Your task to perform on an android device: make emails show in primary in the gmail app Image 0: 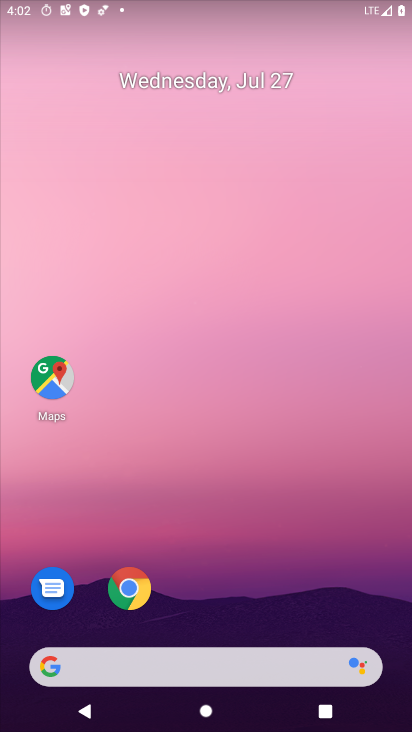
Step 0: press home button
Your task to perform on an android device: make emails show in primary in the gmail app Image 1: 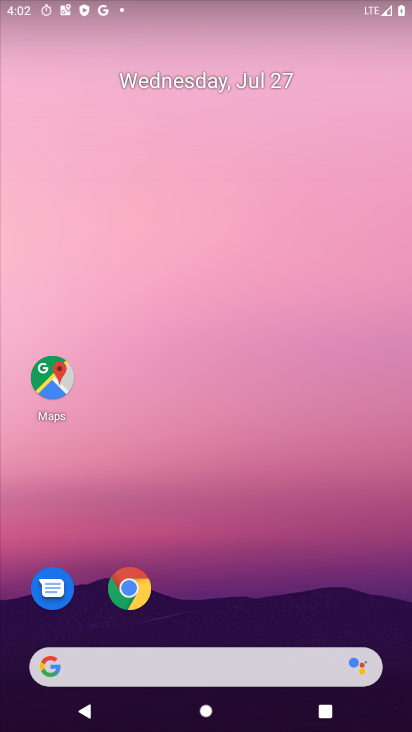
Step 1: drag from (240, 619) to (211, 11)
Your task to perform on an android device: make emails show in primary in the gmail app Image 2: 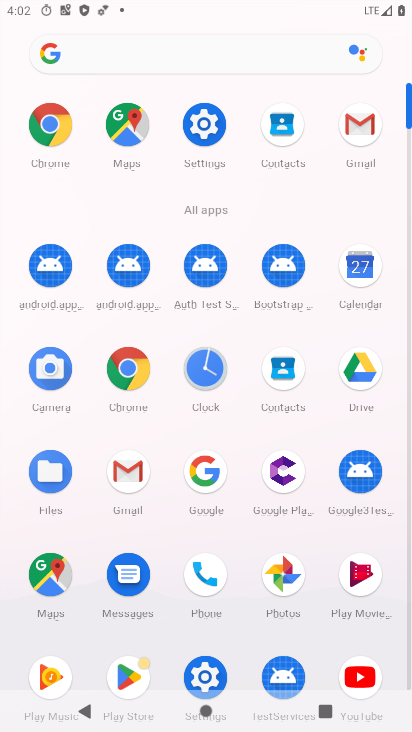
Step 2: click (359, 135)
Your task to perform on an android device: make emails show in primary in the gmail app Image 3: 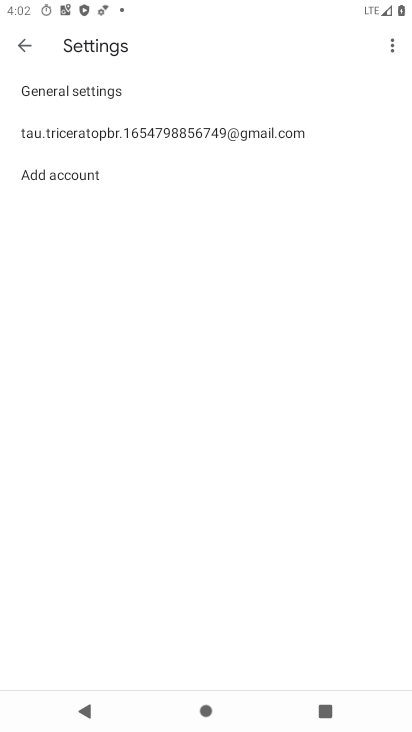
Step 3: click (40, 131)
Your task to perform on an android device: make emails show in primary in the gmail app Image 4: 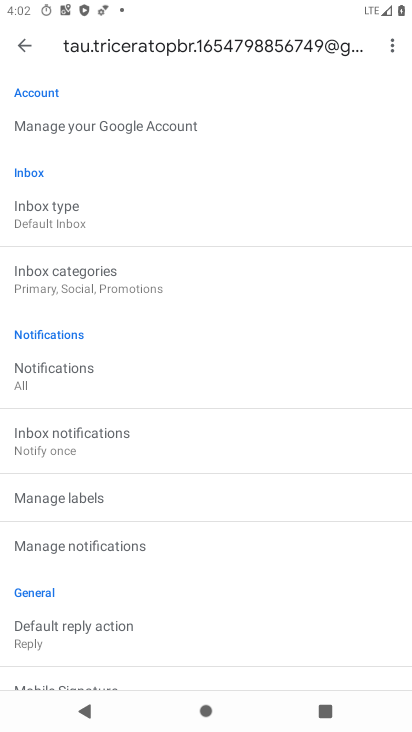
Step 4: click (56, 280)
Your task to perform on an android device: make emails show in primary in the gmail app Image 5: 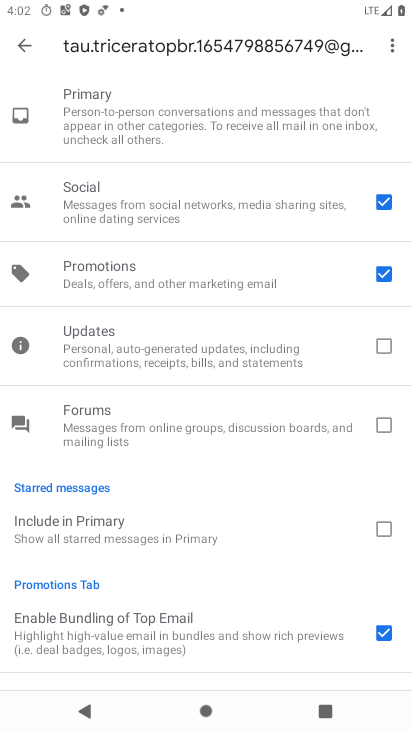
Step 5: click (383, 203)
Your task to perform on an android device: make emails show in primary in the gmail app Image 6: 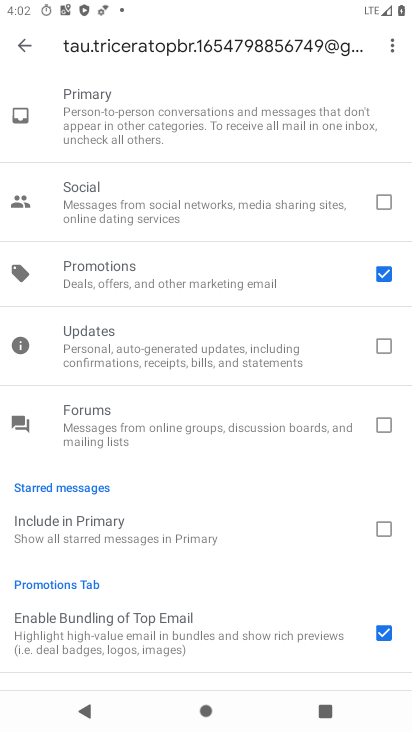
Step 6: click (386, 275)
Your task to perform on an android device: make emails show in primary in the gmail app Image 7: 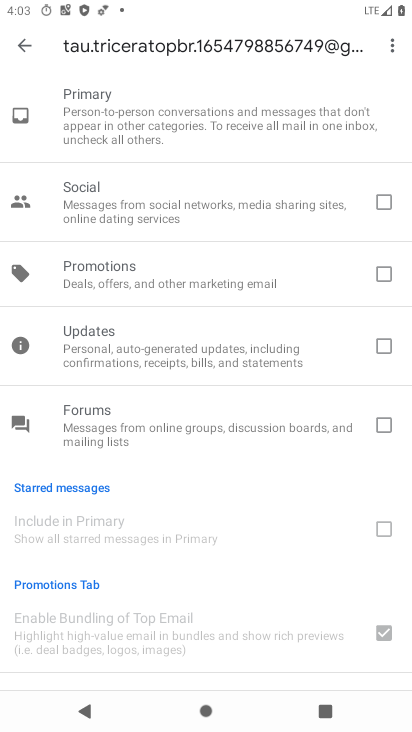
Step 7: task complete